Your task to perform on an android device: clear history in the chrome app Image 0: 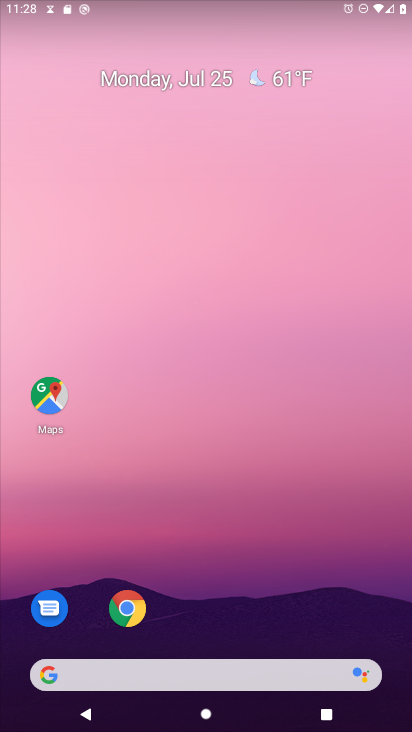
Step 0: click (127, 607)
Your task to perform on an android device: clear history in the chrome app Image 1: 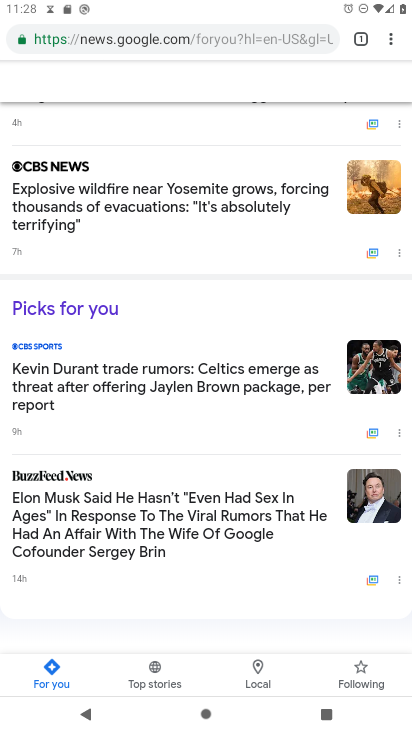
Step 1: click (390, 41)
Your task to perform on an android device: clear history in the chrome app Image 2: 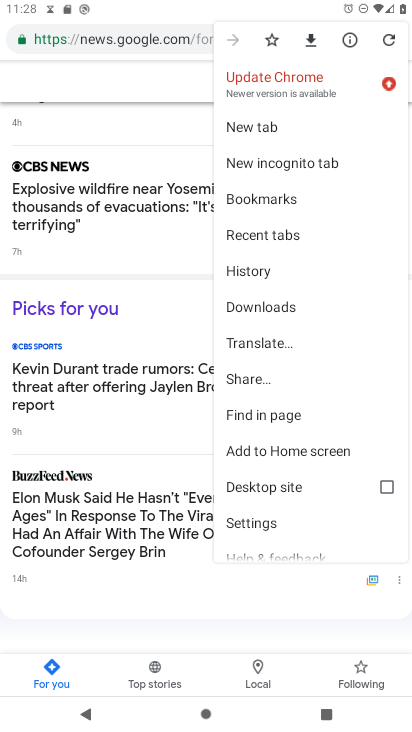
Step 2: click (253, 270)
Your task to perform on an android device: clear history in the chrome app Image 3: 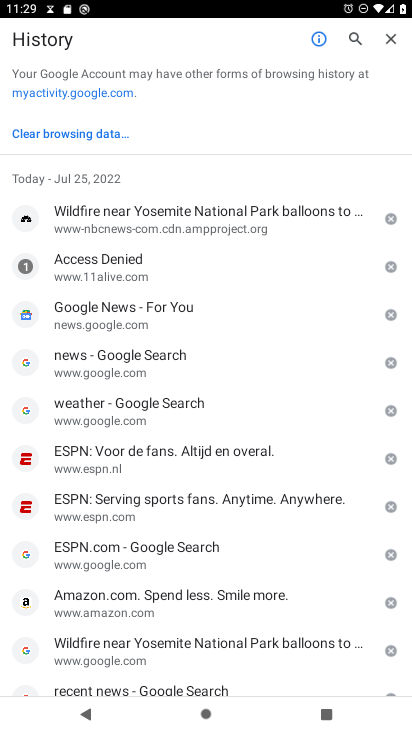
Step 3: click (106, 131)
Your task to perform on an android device: clear history in the chrome app Image 4: 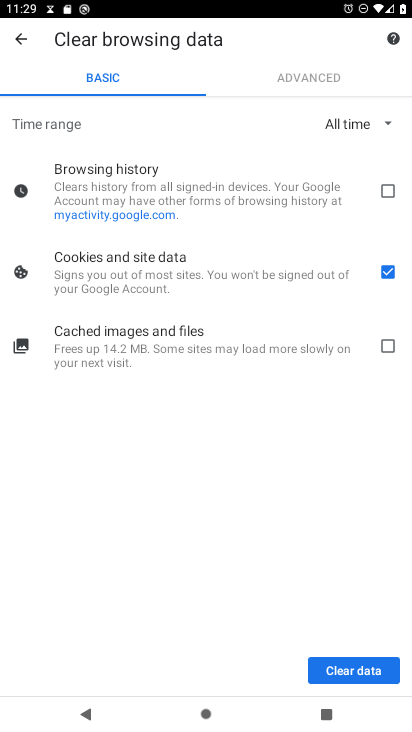
Step 4: click (387, 336)
Your task to perform on an android device: clear history in the chrome app Image 5: 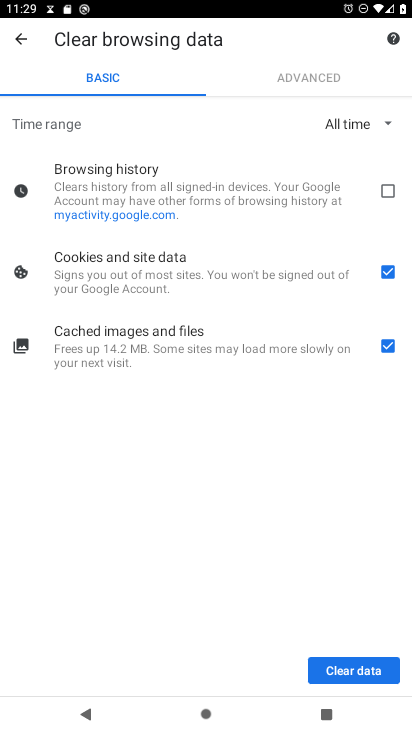
Step 5: click (391, 198)
Your task to perform on an android device: clear history in the chrome app Image 6: 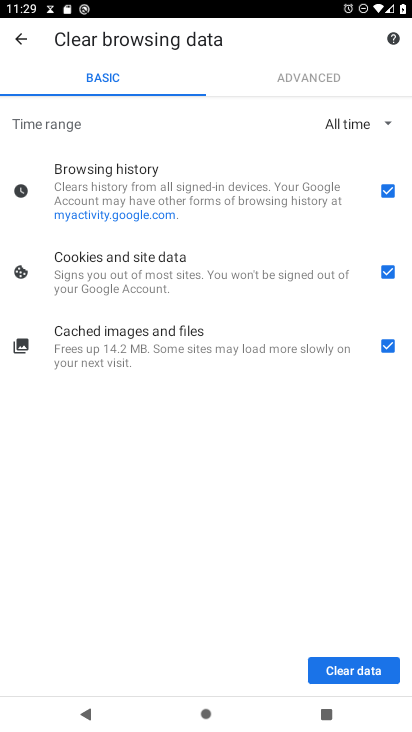
Step 6: click (350, 673)
Your task to perform on an android device: clear history in the chrome app Image 7: 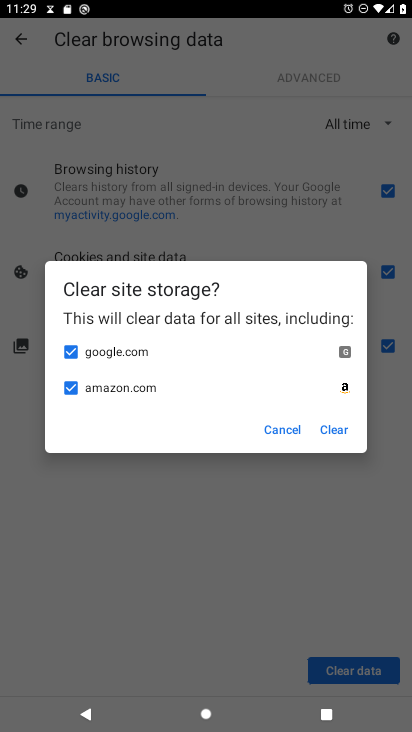
Step 7: click (334, 431)
Your task to perform on an android device: clear history in the chrome app Image 8: 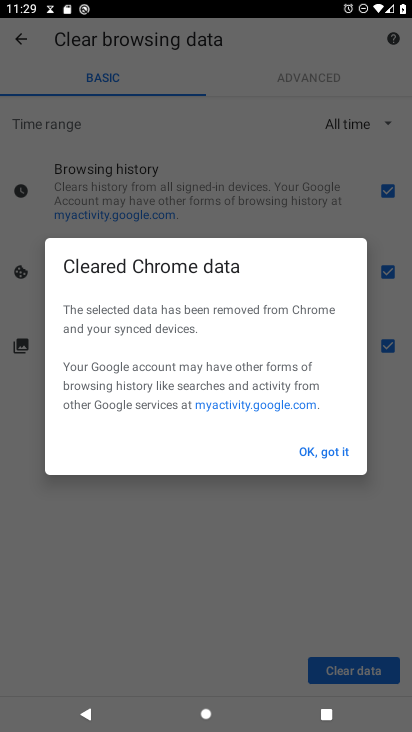
Step 8: click (331, 450)
Your task to perform on an android device: clear history in the chrome app Image 9: 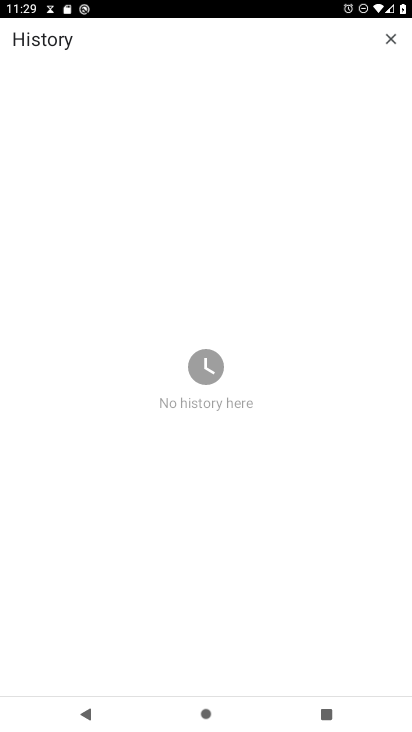
Step 9: task complete